Your task to perform on an android device: change the clock display to analog Image 0: 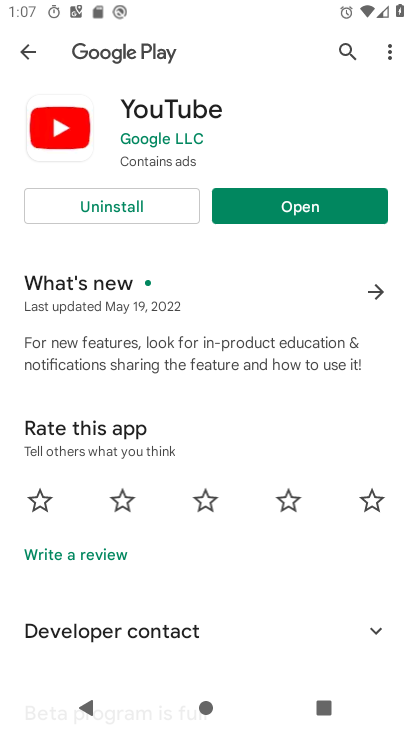
Step 0: press home button
Your task to perform on an android device: change the clock display to analog Image 1: 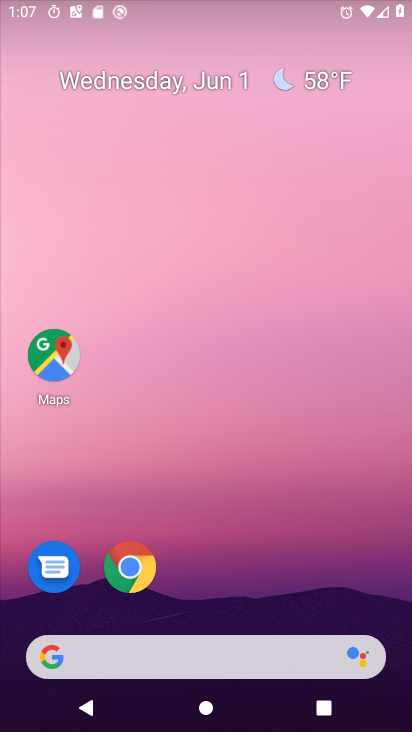
Step 1: drag from (247, 594) to (277, 118)
Your task to perform on an android device: change the clock display to analog Image 2: 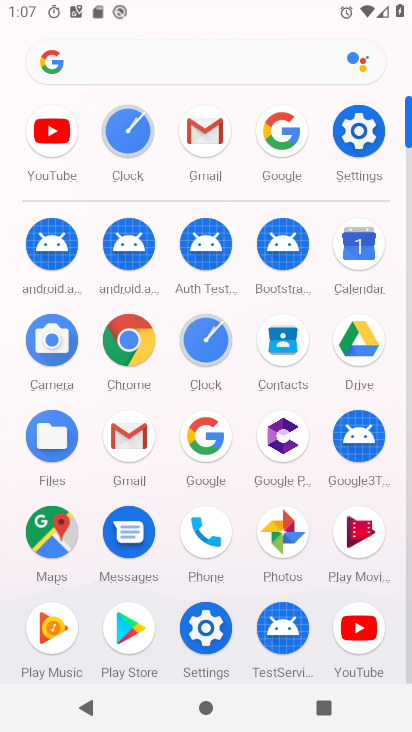
Step 2: click (210, 344)
Your task to perform on an android device: change the clock display to analog Image 3: 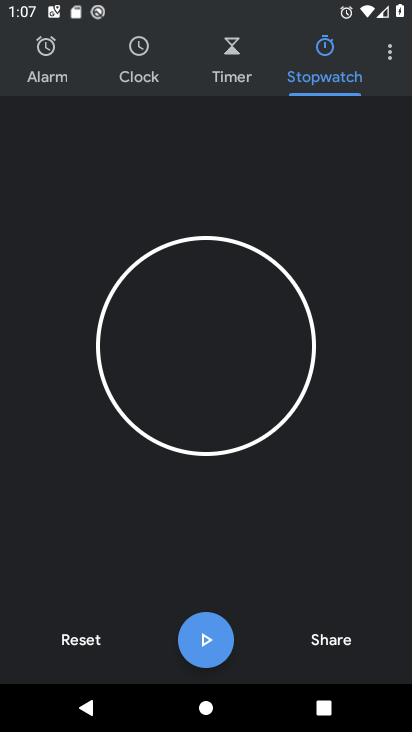
Step 3: click (388, 52)
Your task to perform on an android device: change the clock display to analog Image 4: 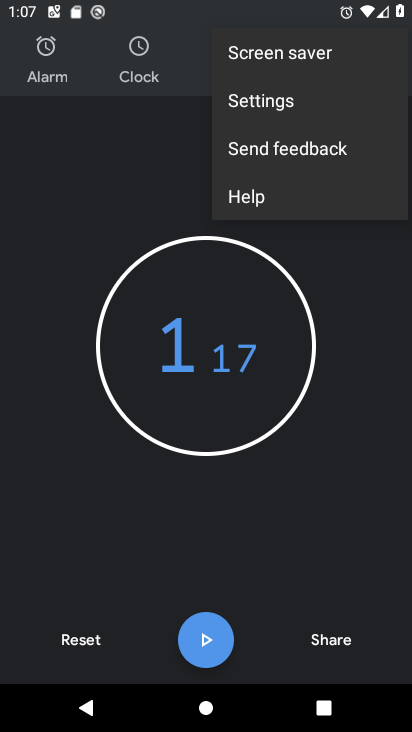
Step 4: click (311, 107)
Your task to perform on an android device: change the clock display to analog Image 5: 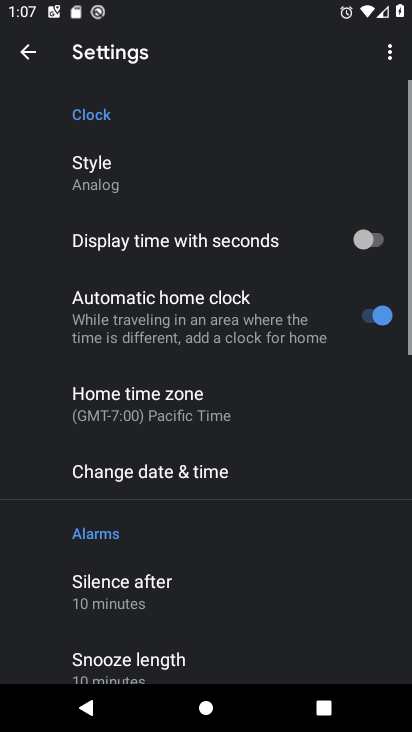
Step 5: click (196, 180)
Your task to perform on an android device: change the clock display to analog Image 6: 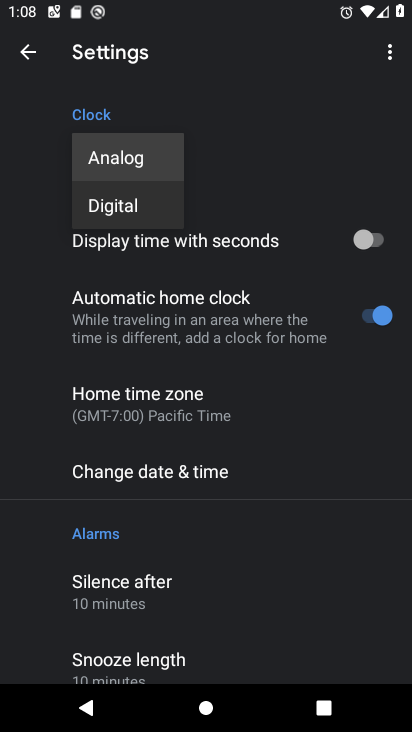
Step 6: task complete